Your task to perform on an android device: Go to calendar. Show me events next week Image 0: 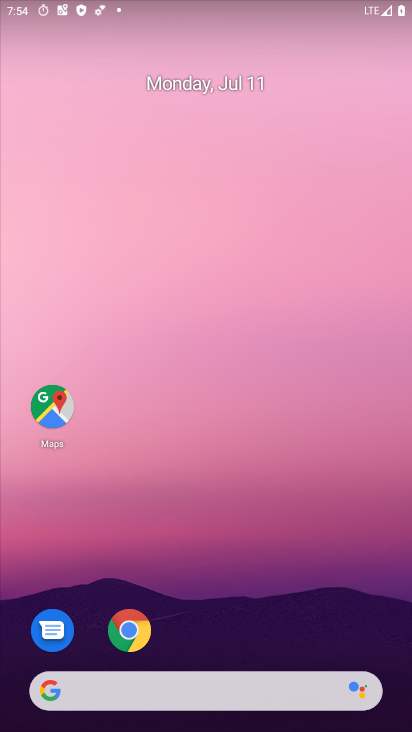
Step 0: drag from (219, 689) to (303, 103)
Your task to perform on an android device: Go to calendar. Show me events next week Image 1: 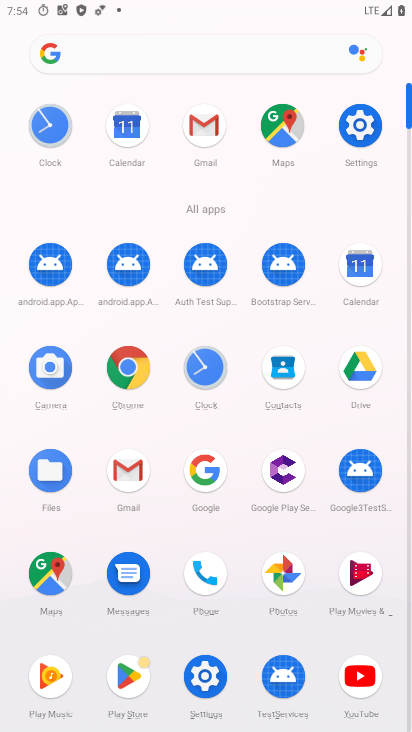
Step 1: click (361, 258)
Your task to perform on an android device: Go to calendar. Show me events next week Image 2: 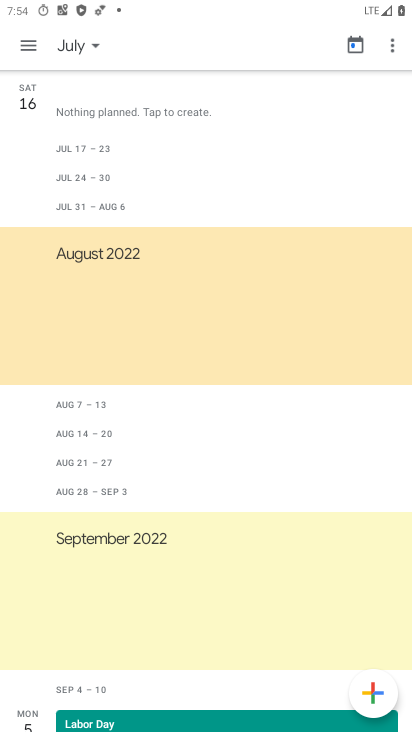
Step 2: click (81, 39)
Your task to perform on an android device: Go to calendar. Show me events next week Image 3: 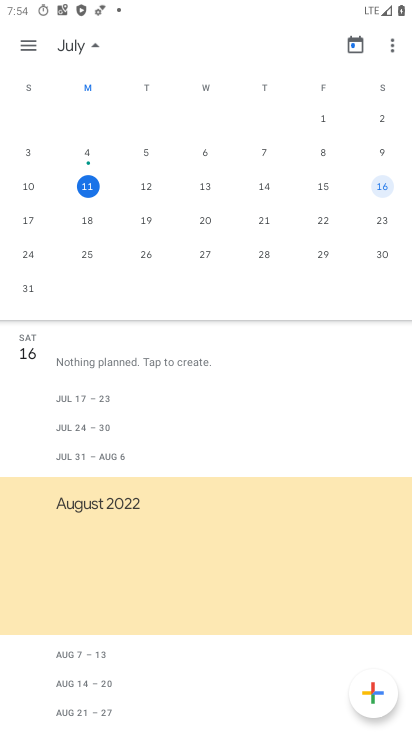
Step 3: click (28, 216)
Your task to perform on an android device: Go to calendar. Show me events next week Image 4: 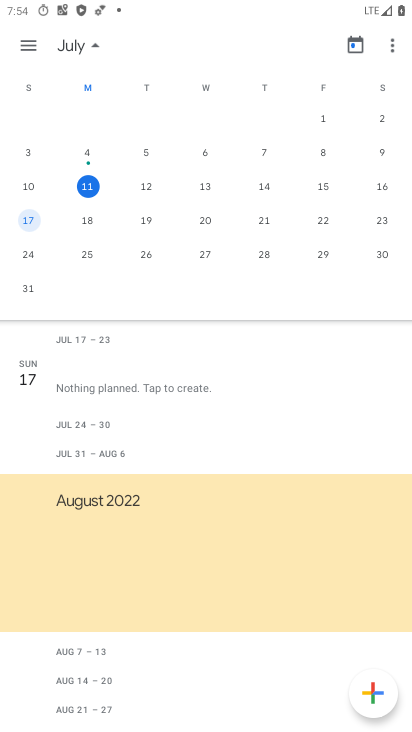
Step 4: click (25, 45)
Your task to perform on an android device: Go to calendar. Show me events next week Image 5: 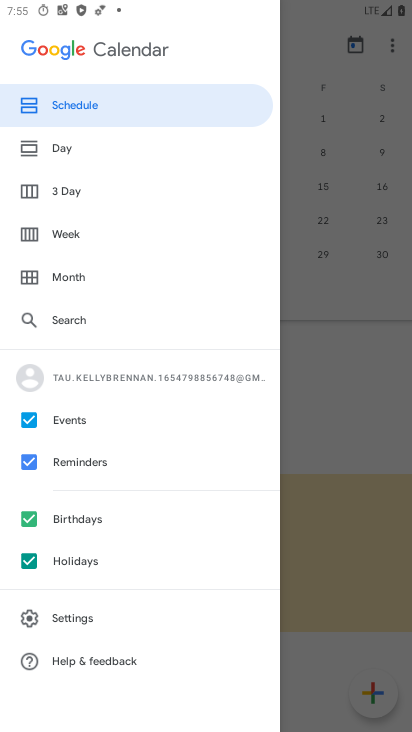
Step 5: click (57, 238)
Your task to perform on an android device: Go to calendar. Show me events next week Image 6: 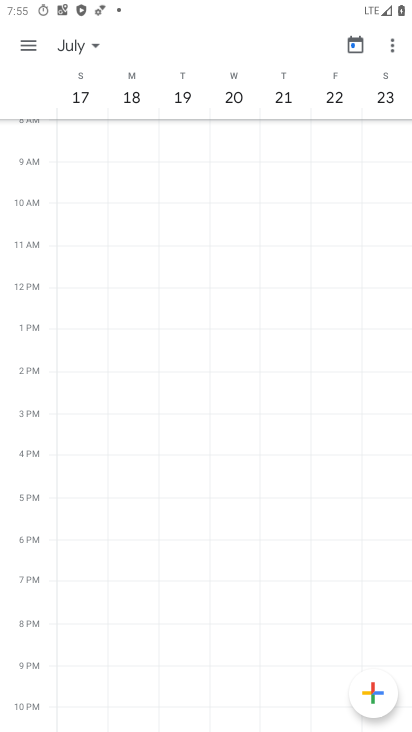
Step 6: click (36, 44)
Your task to perform on an android device: Go to calendar. Show me events next week Image 7: 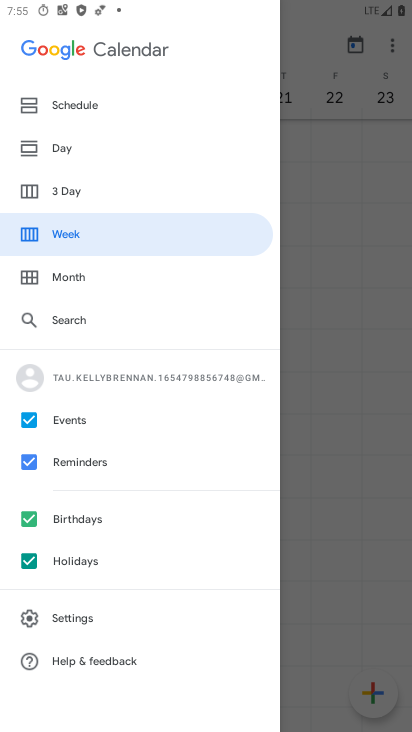
Step 7: click (97, 105)
Your task to perform on an android device: Go to calendar. Show me events next week Image 8: 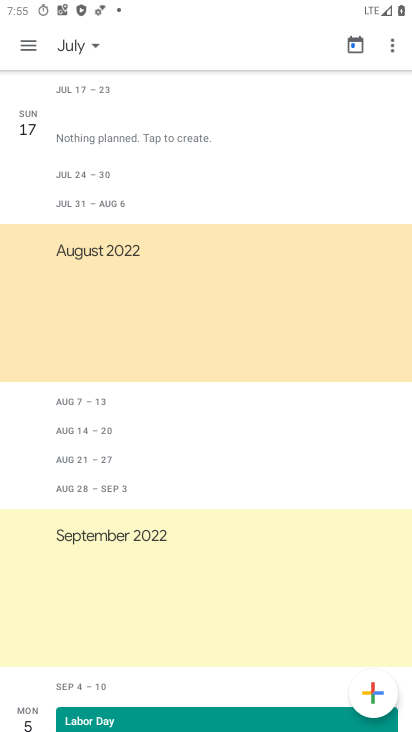
Step 8: task complete